Your task to perform on an android device: Google the capital of Brazil Image 0: 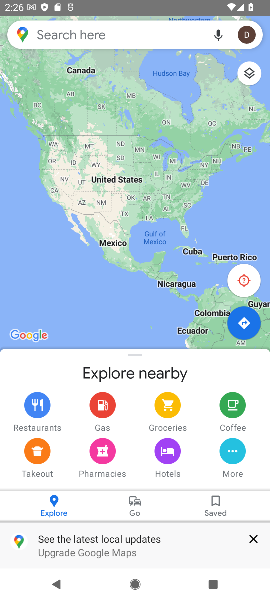
Step 0: press home button
Your task to perform on an android device: Google the capital of Brazil Image 1: 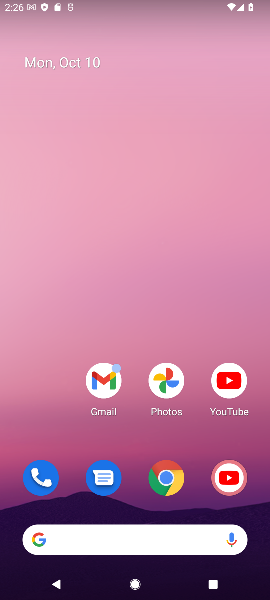
Step 1: click (166, 476)
Your task to perform on an android device: Google the capital of Brazil Image 2: 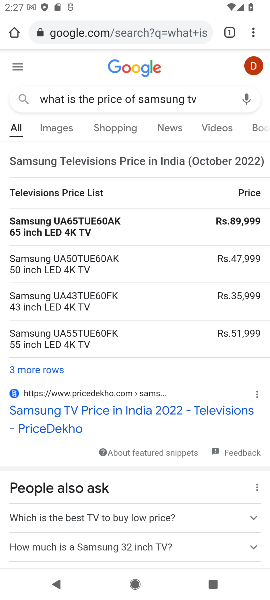
Step 2: click (121, 37)
Your task to perform on an android device: Google the capital of Brazil Image 3: 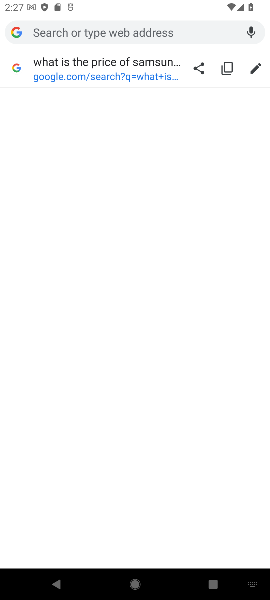
Step 3: type "Google the capital of Brazil"
Your task to perform on an android device: Google the capital of Brazil Image 4: 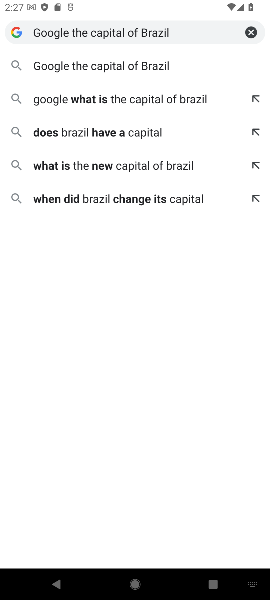
Step 4: click (141, 66)
Your task to perform on an android device: Google the capital of Brazil Image 5: 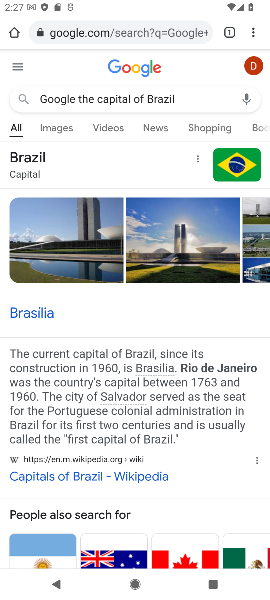
Step 5: task complete